Your task to perform on an android device: read, delete, or share a saved page in the chrome app Image 0: 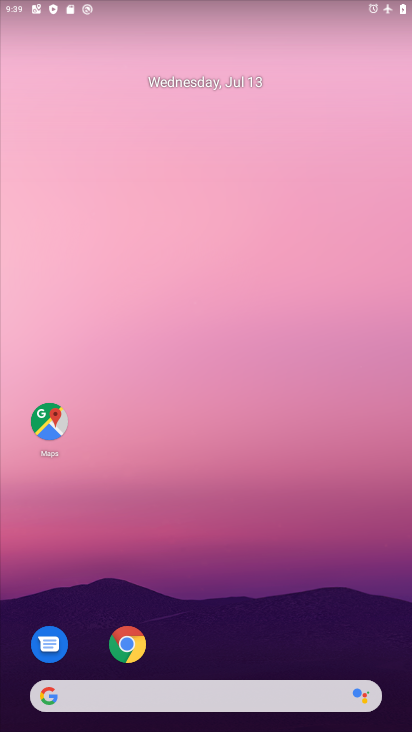
Step 0: drag from (195, 729) to (228, 90)
Your task to perform on an android device: read, delete, or share a saved page in the chrome app Image 1: 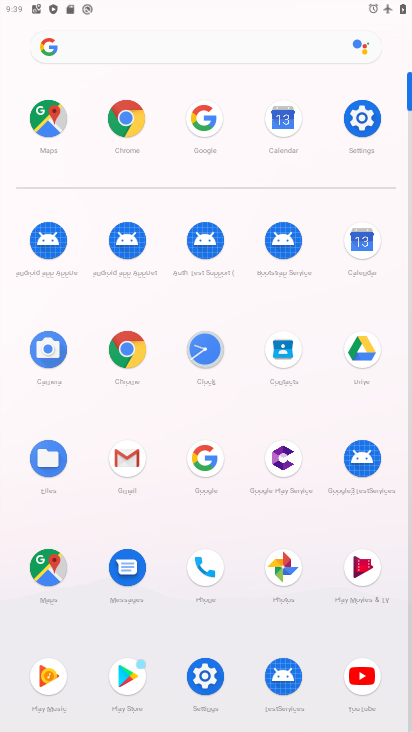
Step 1: click (132, 117)
Your task to perform on an android device: read, delete, or share a saved page in the chrome app Image 2: 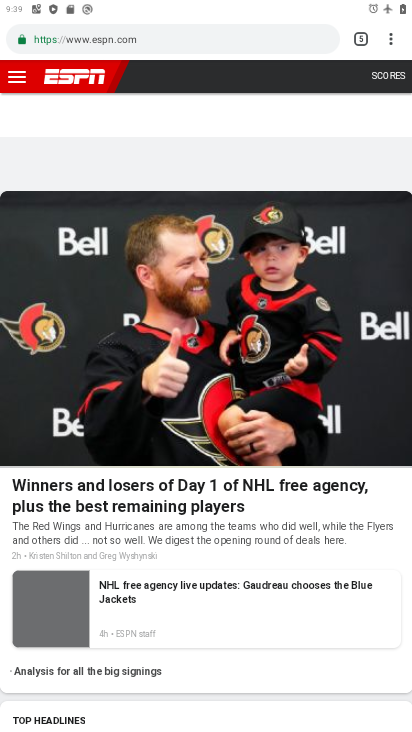
Step 2: click (392, 43)
Your task to perform on an android device: read, delete, or share a saved page in the chrome app Image 3: 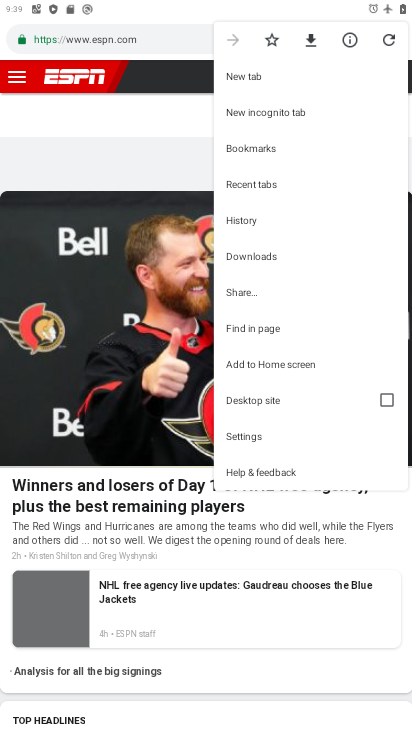
Step 3: click (252, 253)
Your task to perform on an android device: read, delete, or share a saved page in the chrome app Image 4: 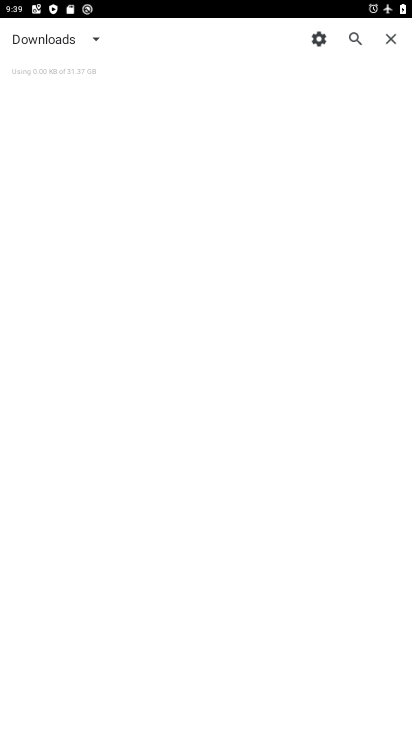
Step 4: task complete